Your task to perform on an android device: choose inbox layout in the gmail app Image 0: 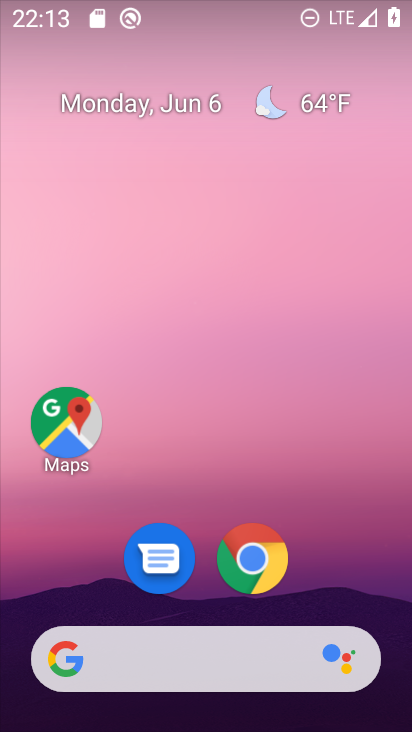
Step 0: drag from (219, 728) to (219, 0)
Your task to perform on an android device: choose inbox layout in the gmail app Image 1: 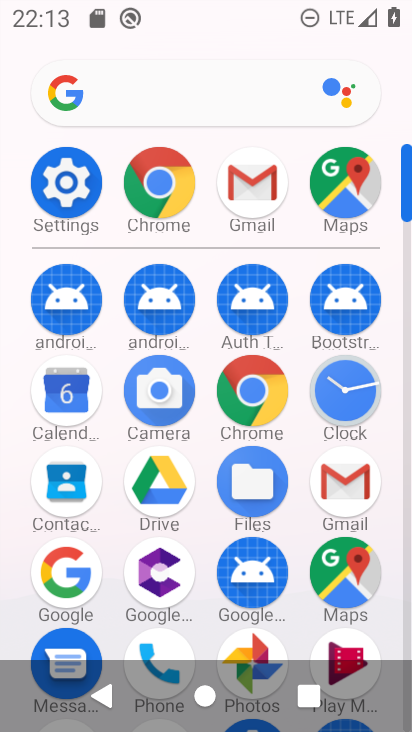
Step 1: click (348, 481)
Your task to perform on an android device: choose inbox layout in the gmail app Image 2: 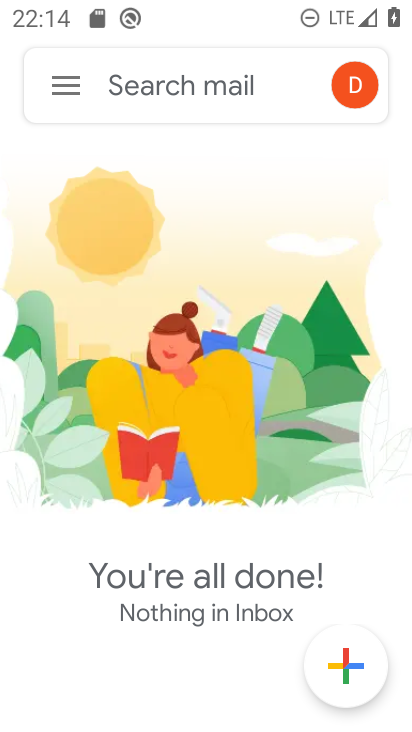
Step 2: click (56, 86)
Your task to perform on an android device: choose inbox layout in the gmail app Image 3: 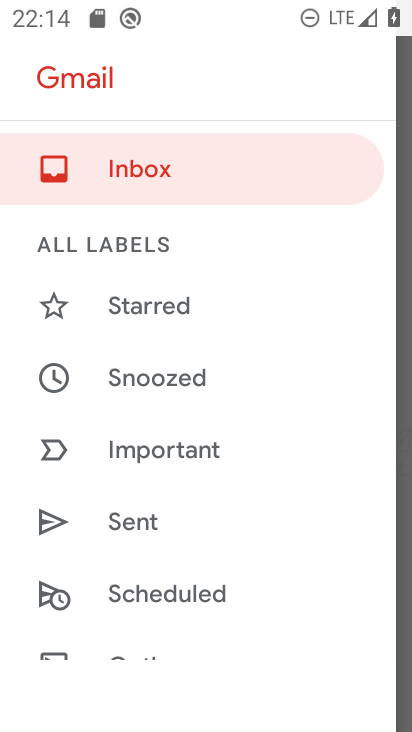
Step 3: drag from (217, 623) to (214, 231)
Your task to perform on an android device: choose inbox layout in the gmail app Image 4: 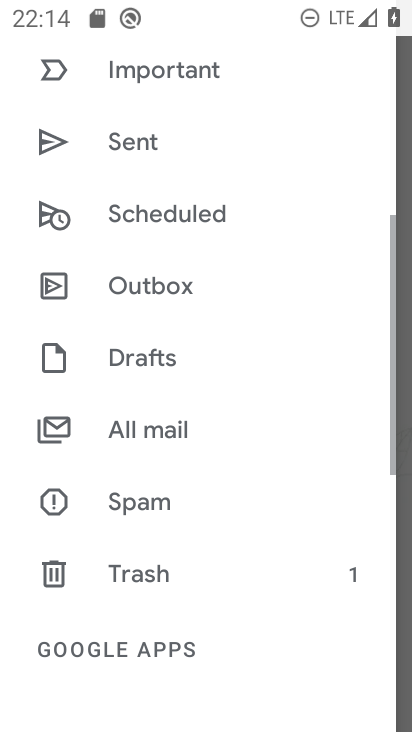
Step 4: drag from (212, 634) to (217, 285)
Your task to perform on an android device: choose inbox layout in the gmail app Image 5: 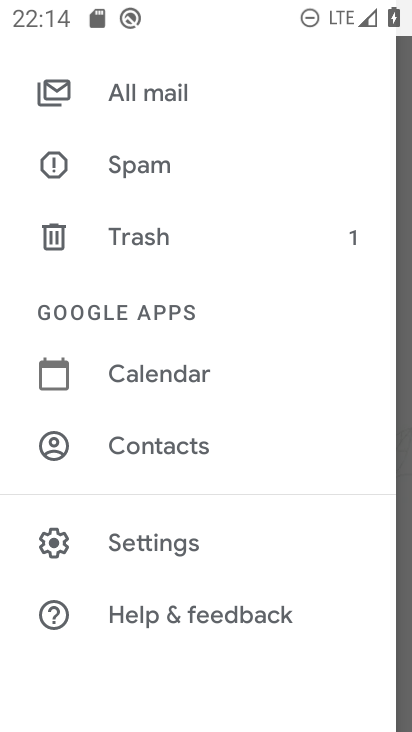
Step 5: click (169, 545)
Your task to perform on an android device: choose inbox layout in the gmail app Image 6: 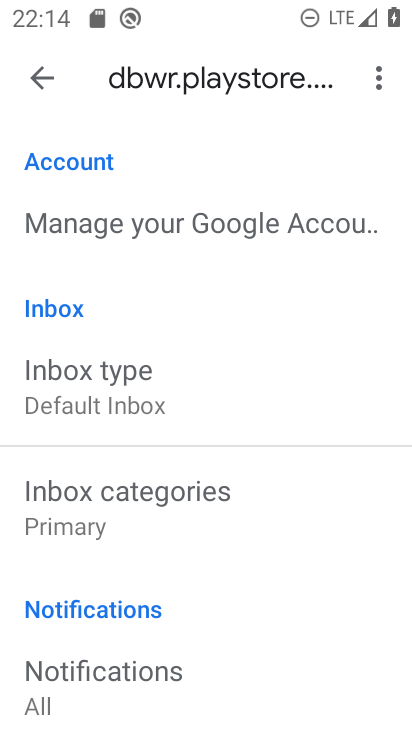
Step 6: click (119, 389)
Your task to perform on an android device: choose inbox layout in the gmail app Image 7: 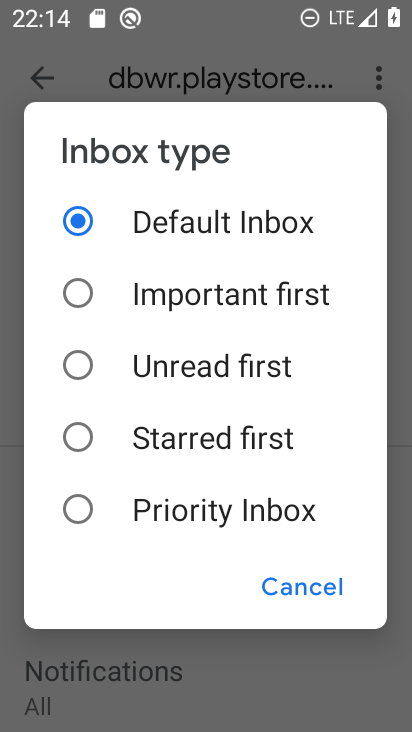
Step 7: click (82, 355)
Your task to perform on an android device: choose inbox layout in the gmail app Image 8: 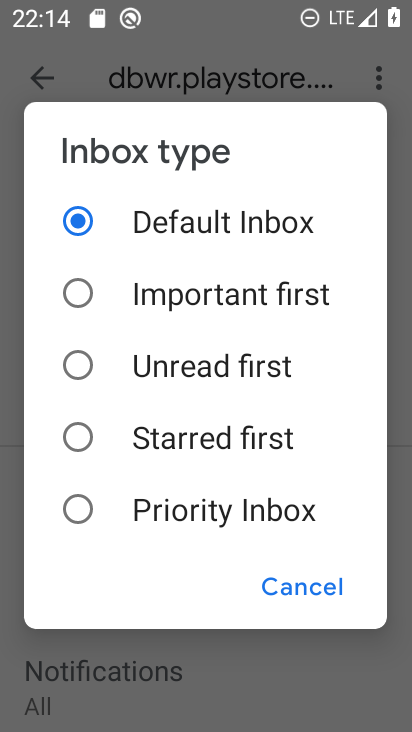
Step 8: click (77, 363)
Your task to perform on an android device: choose inbox layout in the gmail app Image 9: 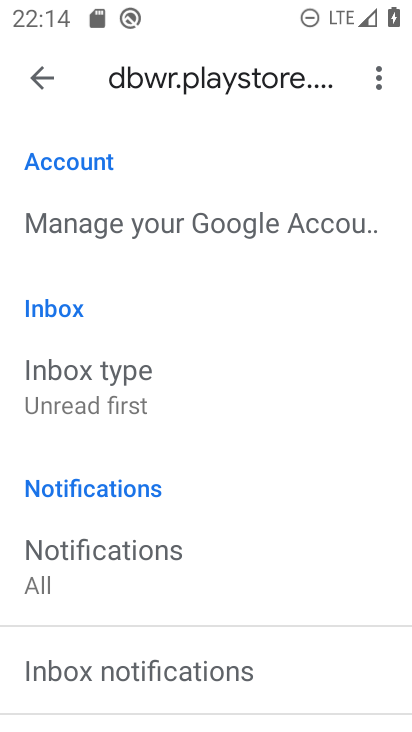
Step 9: task complete